Your task to perform on an android device: Open maps Image 0: 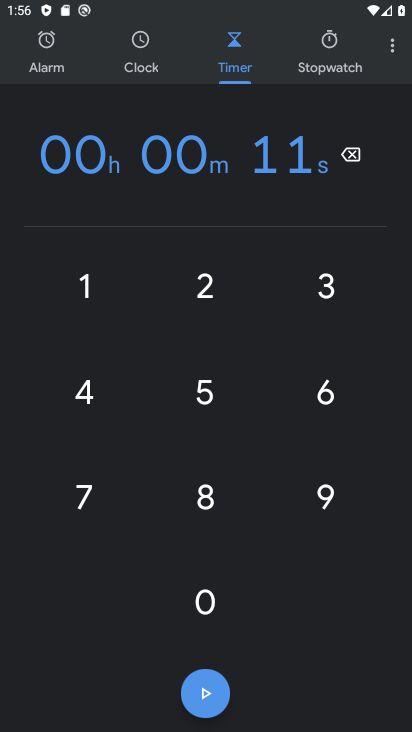
Step 0: press home button
Your task to perform on an android device: Open maps Image 1: 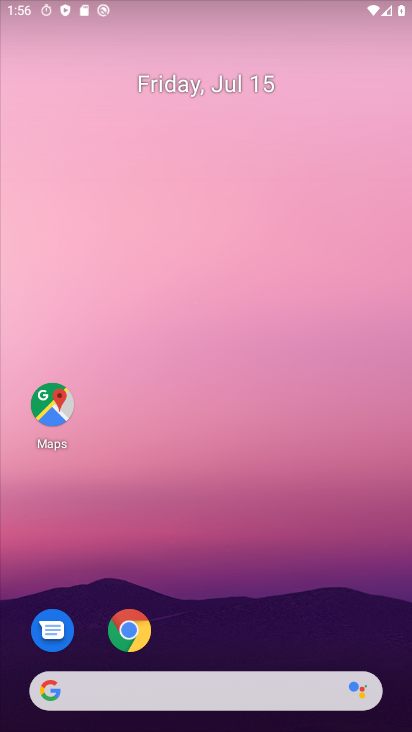
Step 1: click (57, 428)
Your task to perform on an android device: Open maps Image 2: 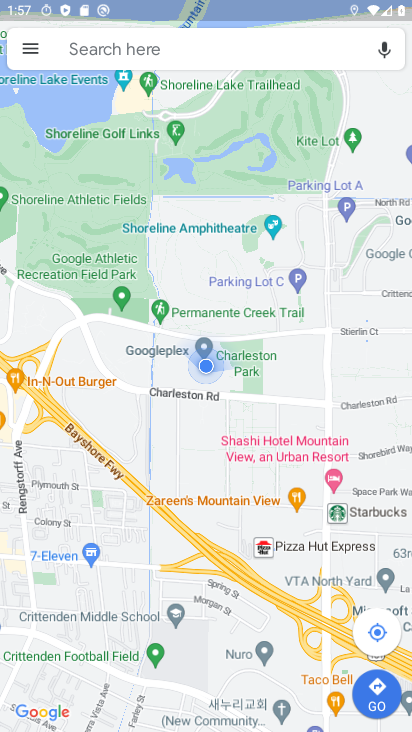
Step 2: task complete